Your task to perform on an android device: check data usage Image 0: 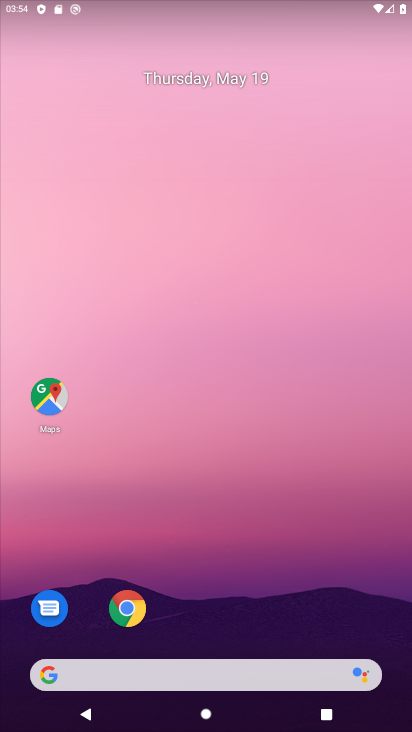
Step 0: drag from (265, 580) to (182, 183)
Your task to perform on an android device: check data usage Image 1: 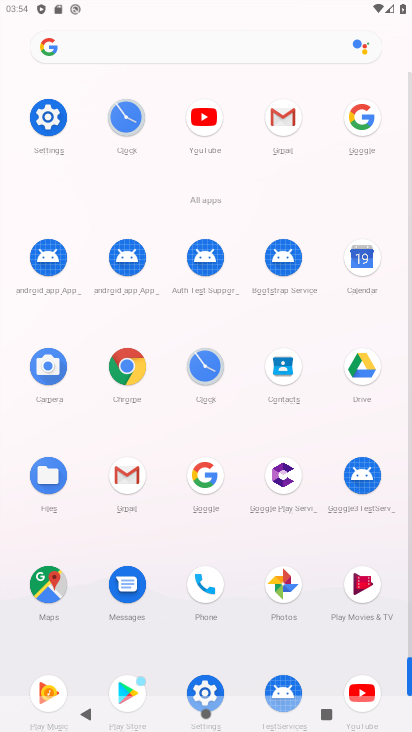
Step 1: click (48, 118)
Your task to perform on an android device: check data usage Image 2: 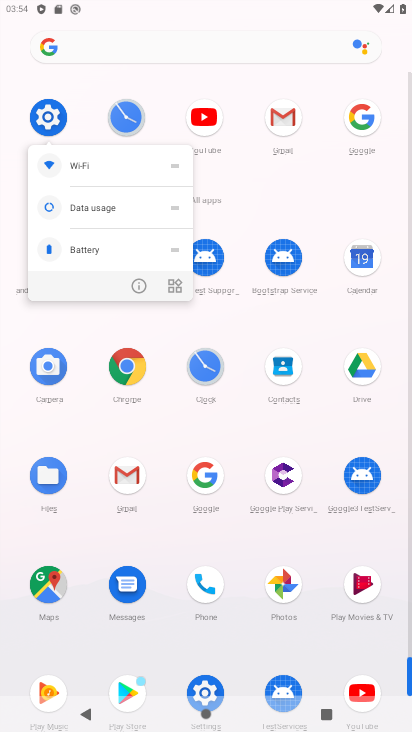
Step 2: click (91, 207)
Your task to perform on an android device: check data usage Image 3: 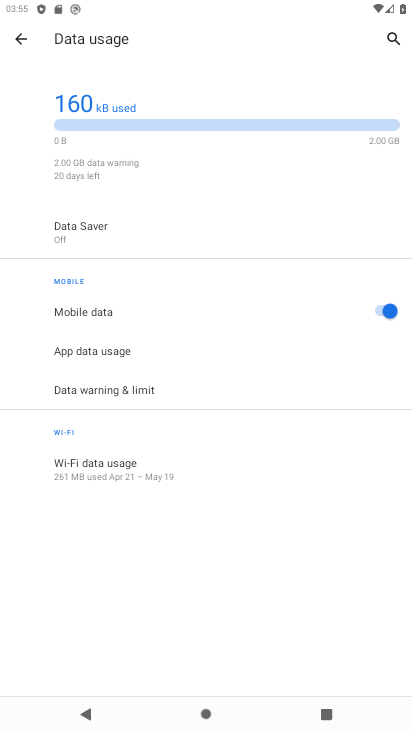
Step 3: task complete